Your task to perform on an android device: create a new album in the google photos Image 0: 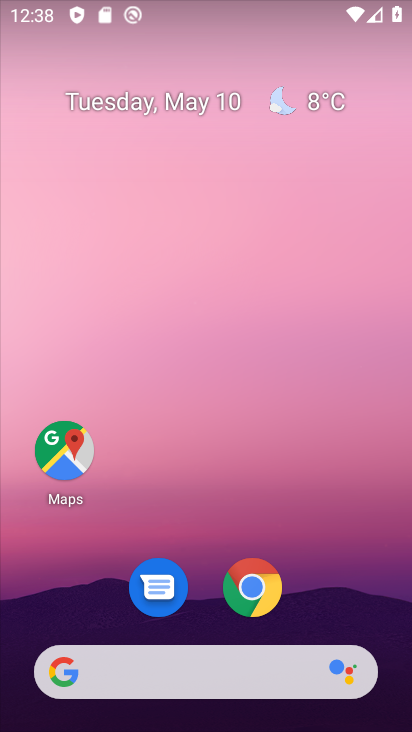
Step 0: drag from (334, 600) to (266, 123)
Your task to perform on an android device: create a new album in the google photos Image 1: 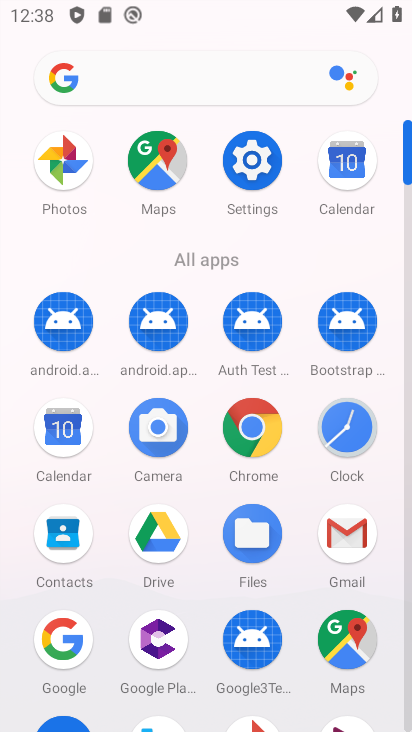
Step 1: click (61, 148)
Your task to perform on an android device: create a new album in the google photos Image 2: 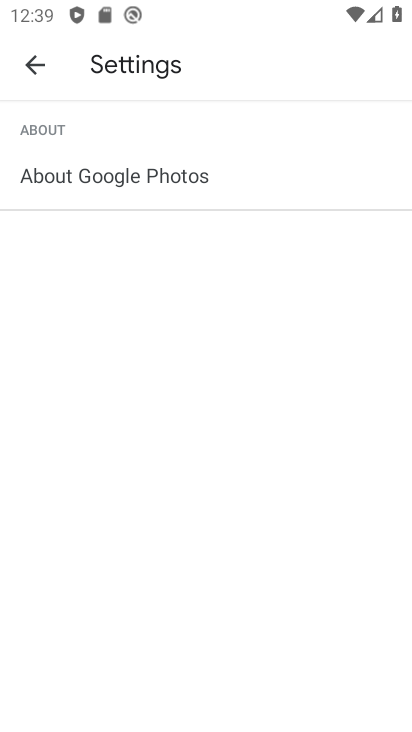
Step 2: click (41, 71)
Your task to perform on an android device: create a new album in the google photos Image 3: 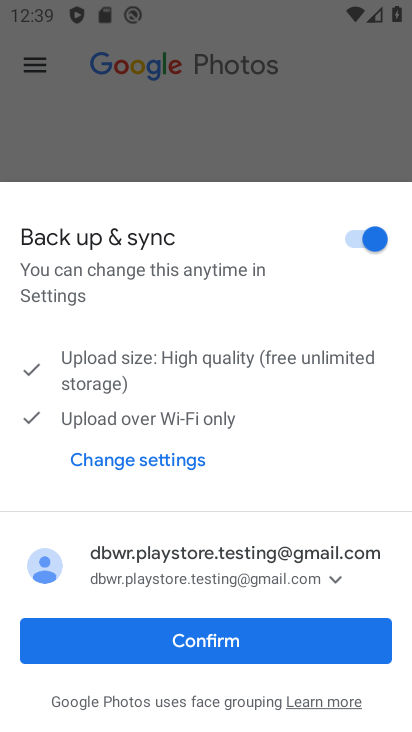
Step 3: click (202, 642)
Your task to perform on an android device: create a new album in the google photos Image 4: 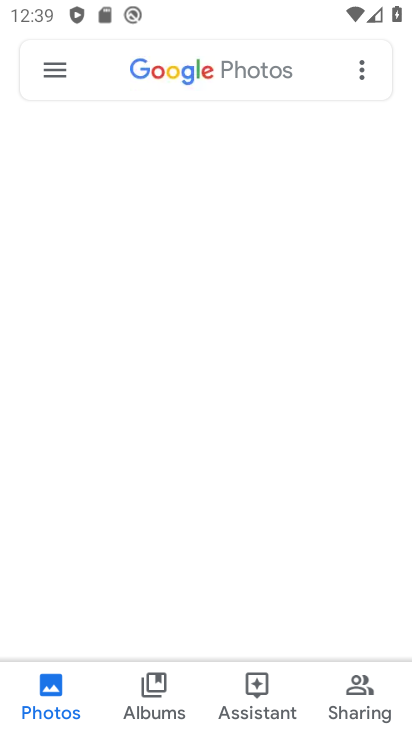
Step 4: click (41, 57)
Your task to perform on an android device: create a new album in the google photos Image 5: 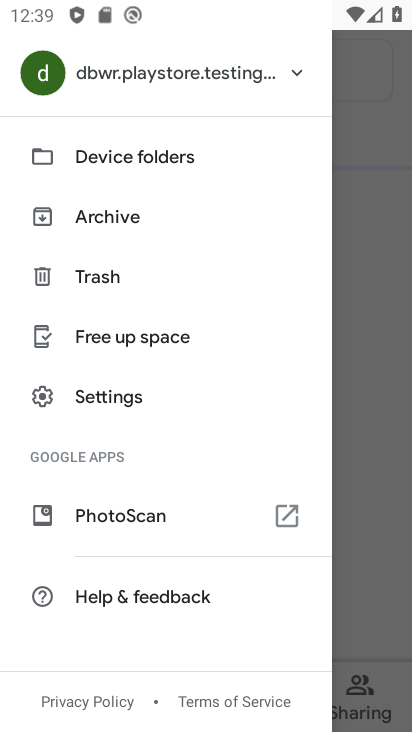
Step 5: click (358, 236)
Your task to perform on an android device: create a new album in the google photos Image 6: 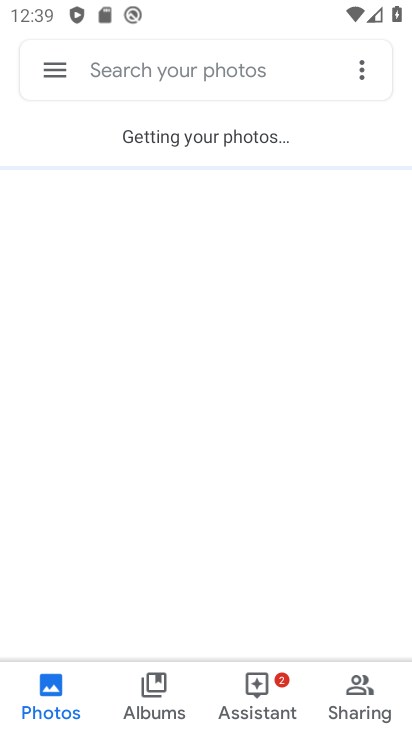
Step 6: click (64, 684)
Your task to perform on an android device: create a new album in the google photos Image 7: 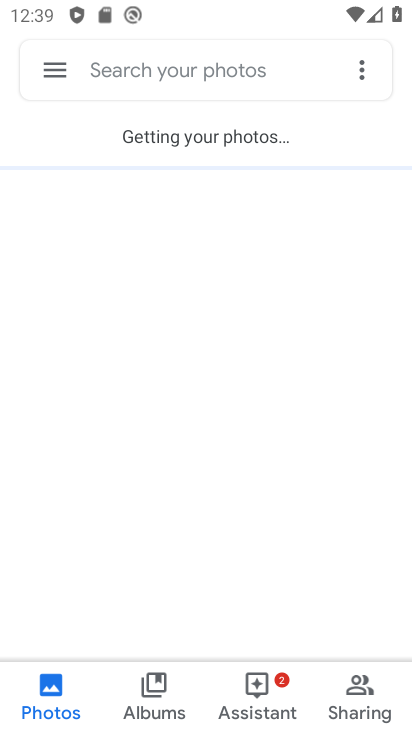
Step 7: task complete